Your task to perform on an android device: Go to Maps Image 0: 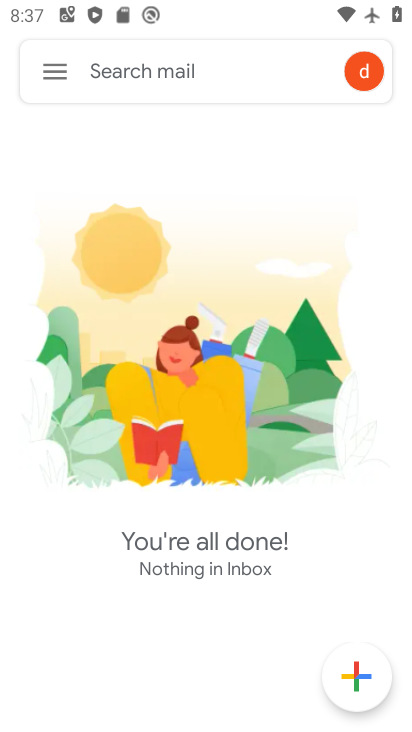
Step 0: press home button
Your task to perform on an android device: Go to Maps Image 1: 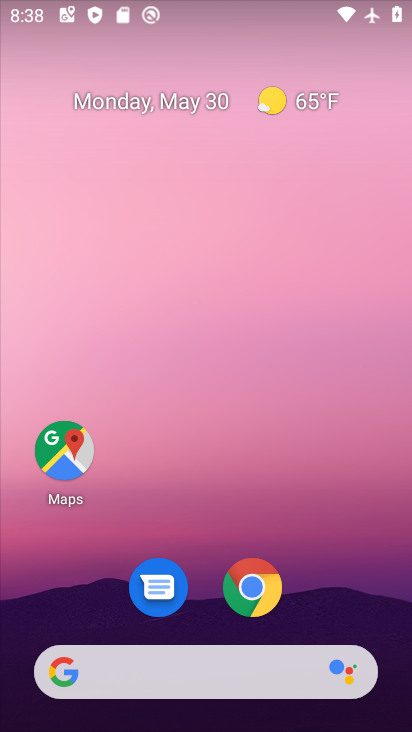
Step 1: click (63, 464)
Your task to perform on an android device: Go to Maps Image 2: 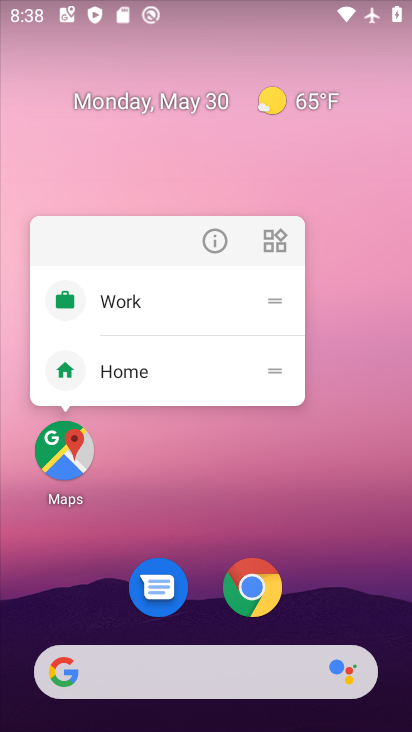
Step 2: click (59, 454)
Your task to perform on an android device: Go to Maps Image 3: 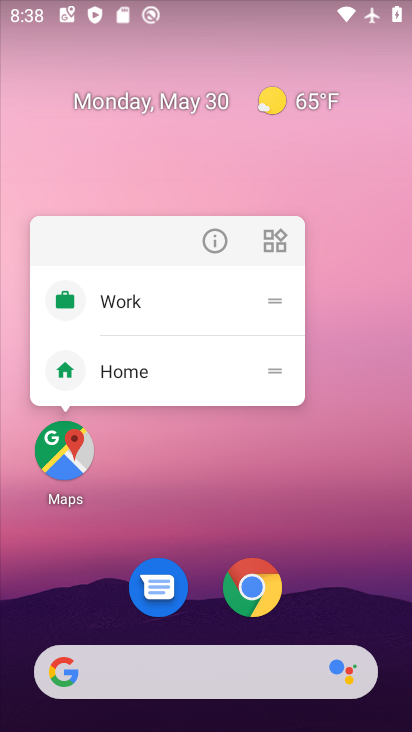
Step 3: click (69, 456)
Your task to perform on an android device: Go to Maps Image 4: 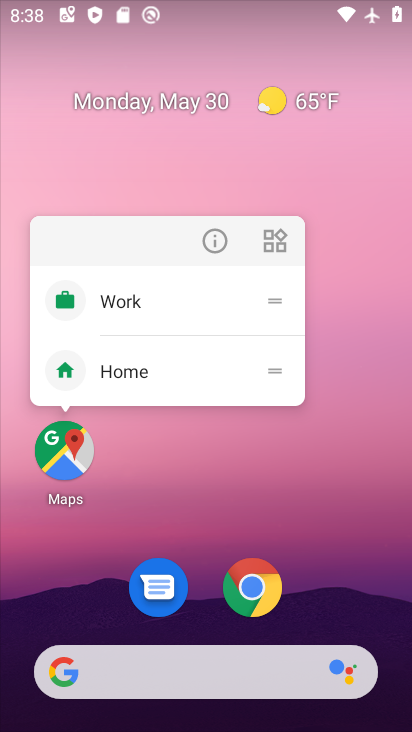
Step 4: click (63, 454)
Your task to perform on an android device: Go to Maps Image 5: 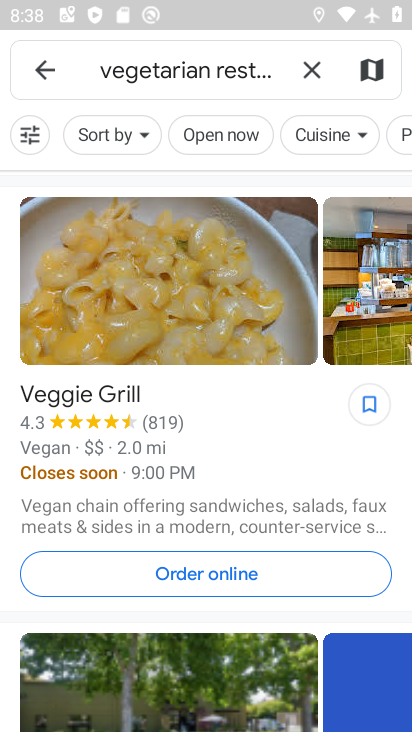
Step 5: click (46, 70)
Your task to perform on an android device: Go to Maps Image 6: 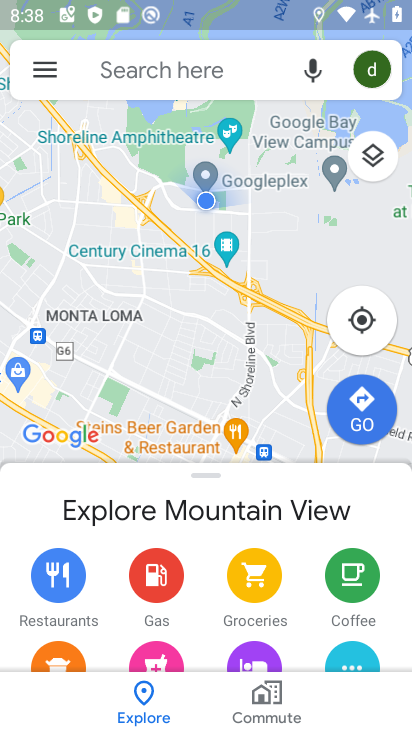
Step 6: task complete